Your task to perform on an android device: turn off picture-in-picture Image 0: 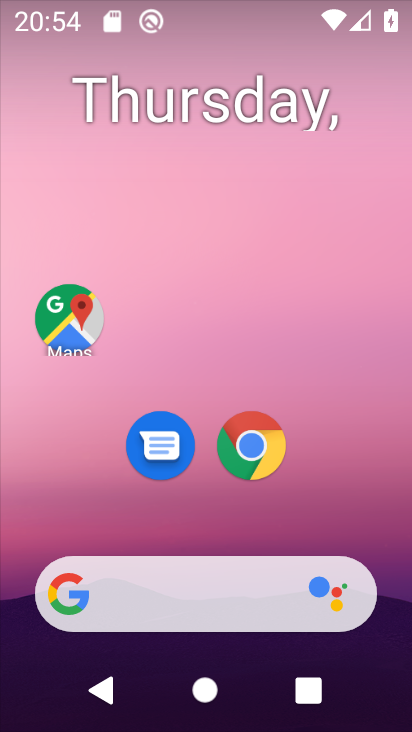
Step 0: drag from (316, 490) to (45, 110)
Your task to perform on an android device: turn off picture-in-picture Image 1: 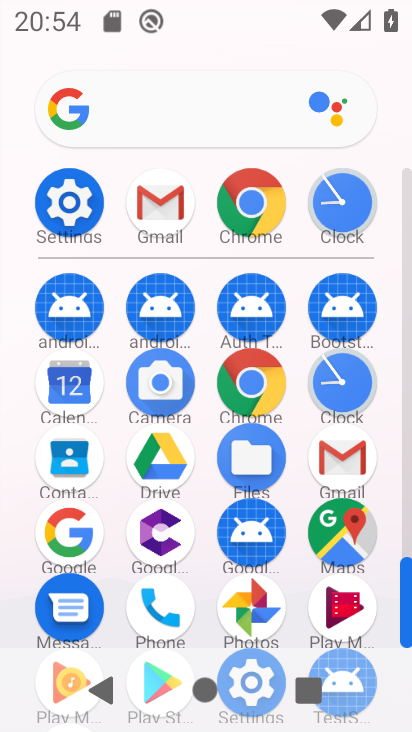
Step 1: click (81, 209)
Your task to perform on an android device: turn off picture-in-picture Image 2: 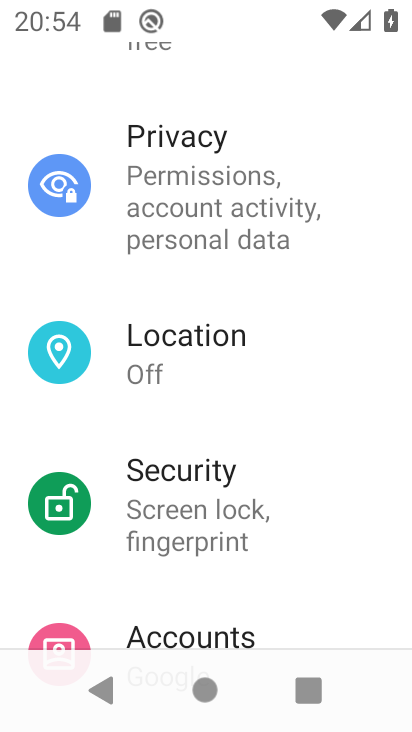
Step 2: drag from (313, 175) to (316, 588)
Your task to perform on an android device: turn off picture-in-picture Image 3: 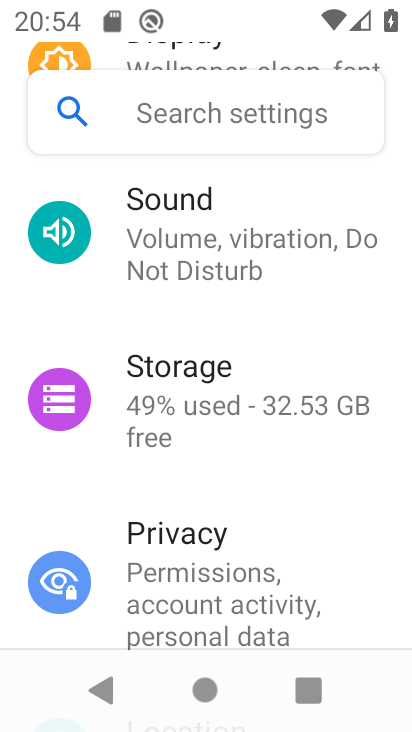
Step 3: drag from (297, 202) to (239, 619)
Your task to perform on an android device: turn off picture-in-picture Image 4: 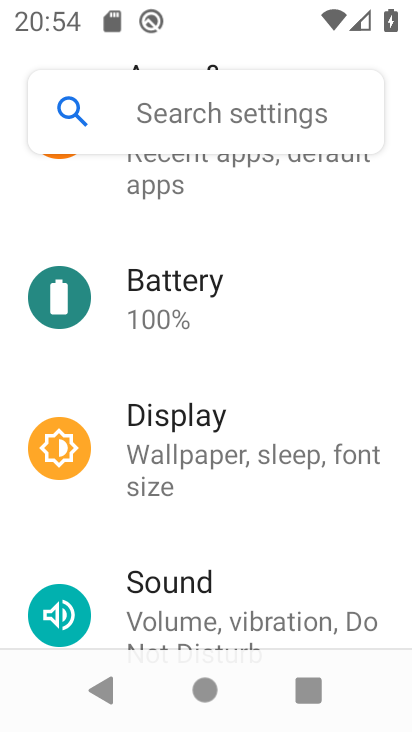
Step 4: drag from (274, 227) to (236, 467)
Your task to perform on an android device: turn off picture-in-picture Image 5: 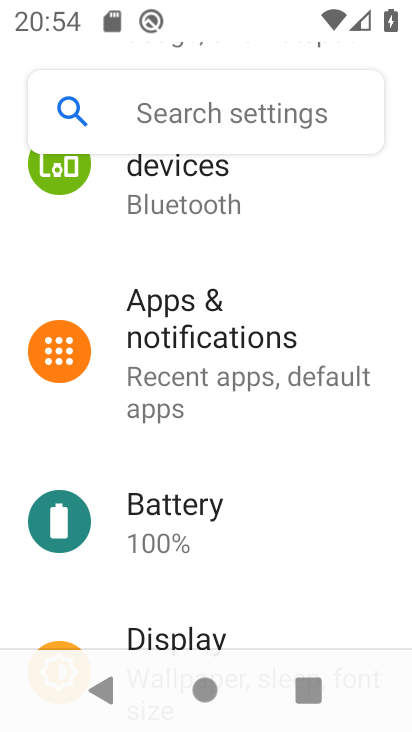
Step 5: click (204, 396)
Your task to perform on an android device: turn off picture-in-picture Image 6: 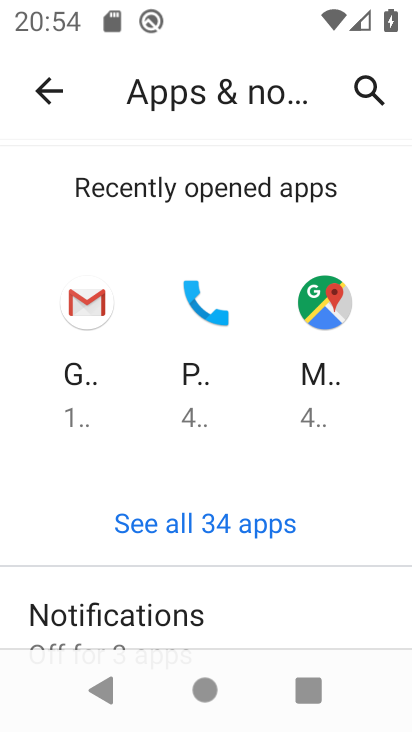
Step 6: drag from (211, 581) to (177, 182)
Your task to perform on an android device: turn off picture-in-picture Image 7: 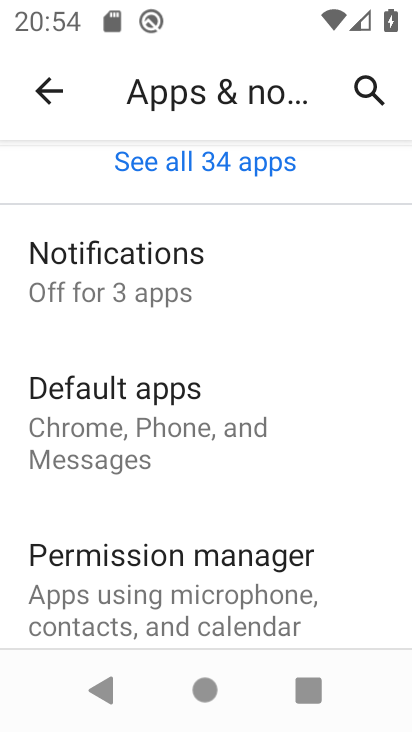
Step 7: click (170, 596)
Your task to perform on an android device: turn off picture-in-picture Image 8: 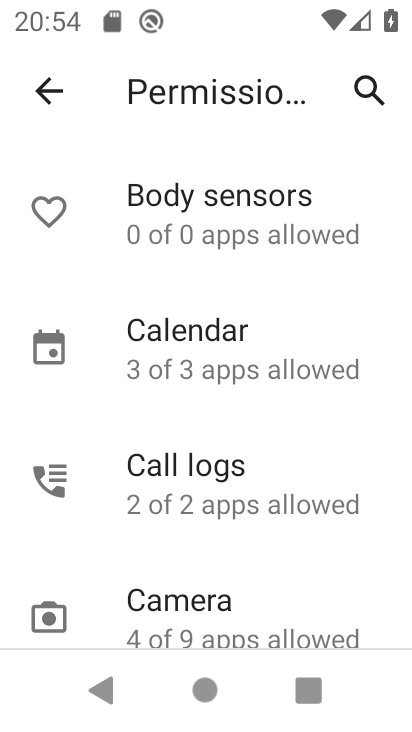
Step 8: press back button
Your task to perform on an android device: turn off picture-in-picture Image 9: 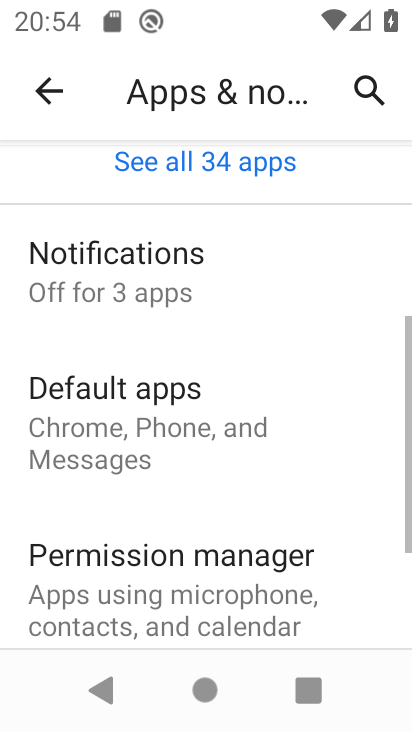
Step 9: drag from (150, 561) to (215, 214)
Your task to perform on an android device: turn off picture-in-picture Image 10: 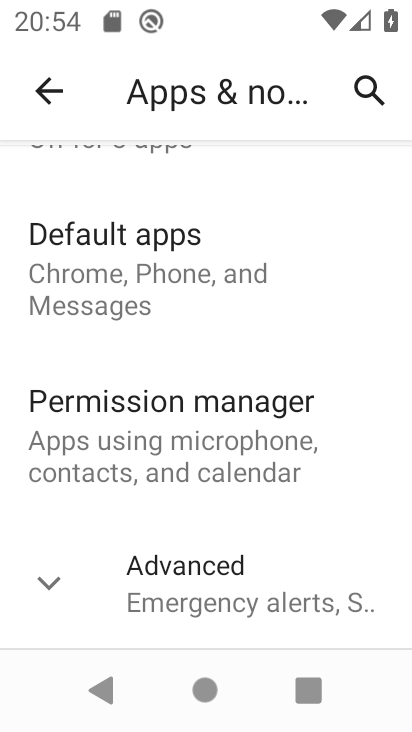
Step 10: click (189, 602)
Your task to perform on an android device: turn off picture-in-picture Image 11: 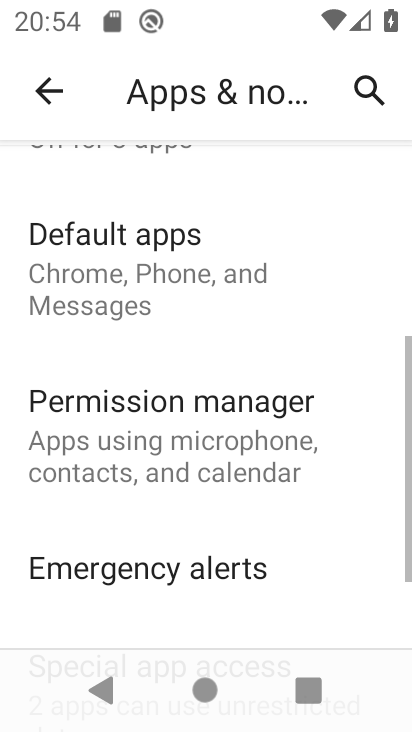
Step 11: drag from (189, 599) to (153, 256)
Your task to perform on an android device: turn off picture-in-picture Image 12: 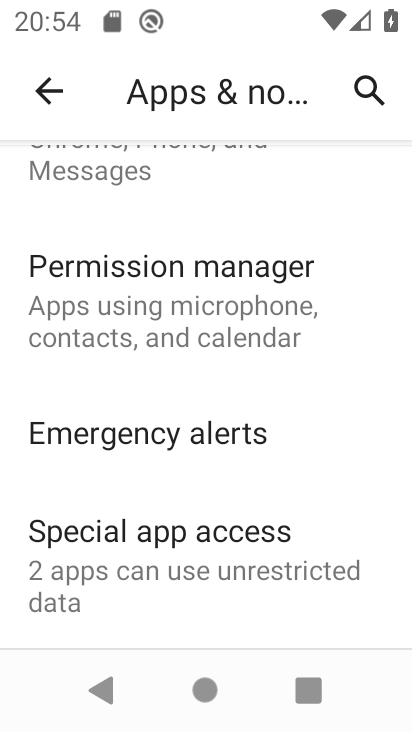
Step 12: click (157, 560)
Your task to perform on an android device: turn off picture-in-picture Image 13: 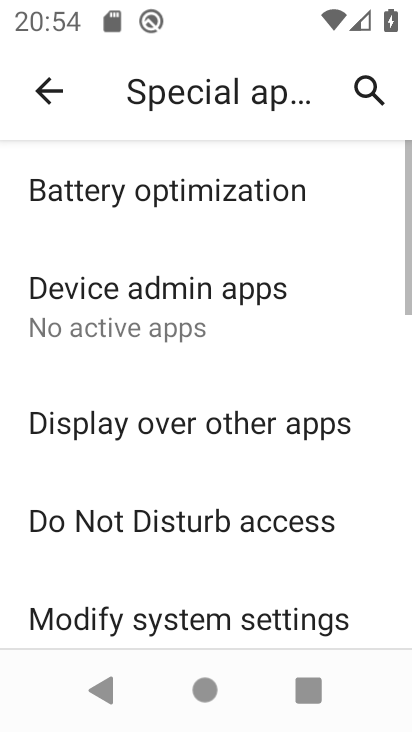
Step 13: drag from (157, 559) to (135, 304)
Your task to perform on an android device: turn off picture-in-picture Image 14: 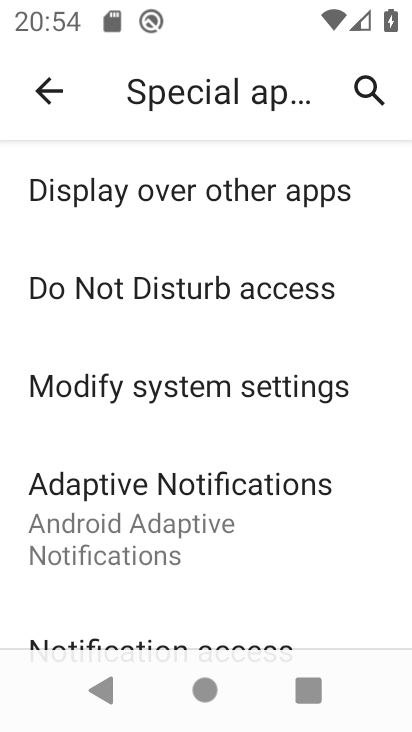
Step 14: drag from (148, 580) to (157, 309)
Your task to perform on an android device: turn off picture-in-picture Image 15: 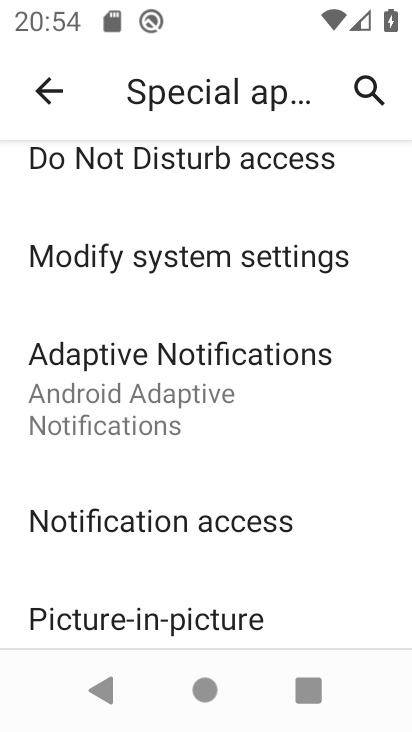
Step 15: click (130, 607)
Your task to perform on an android device: turn off picture-in-picture Image 16: 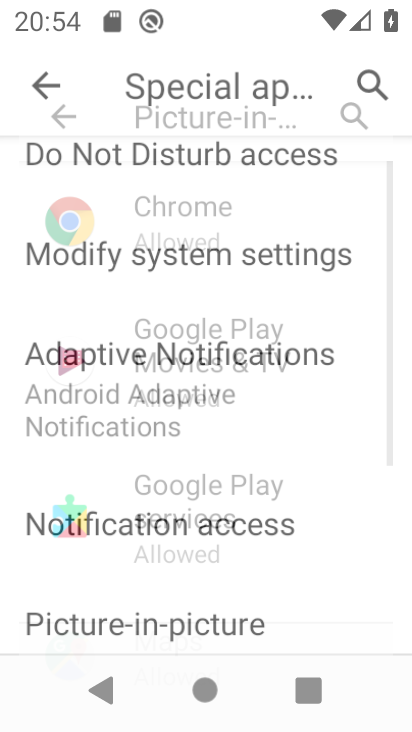
Step 16: drag from (132, 594) to (128, 335)
Your task to perform on an android device: turn off picture-in-picture Image 17: 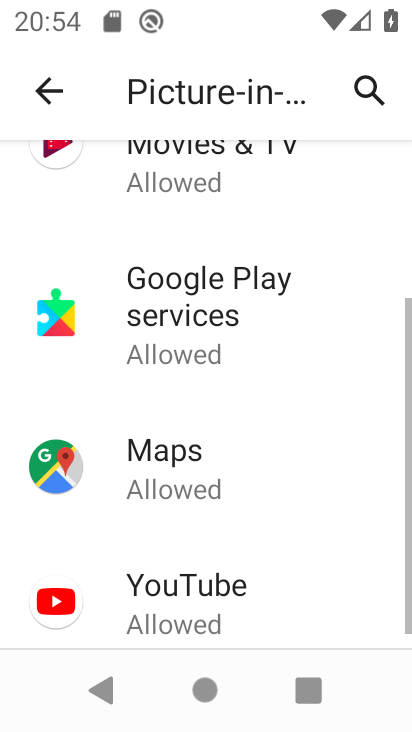
Step 17: click (133, 340)
Your task to perform on an android device: turn off picture-in-picture Image 18: 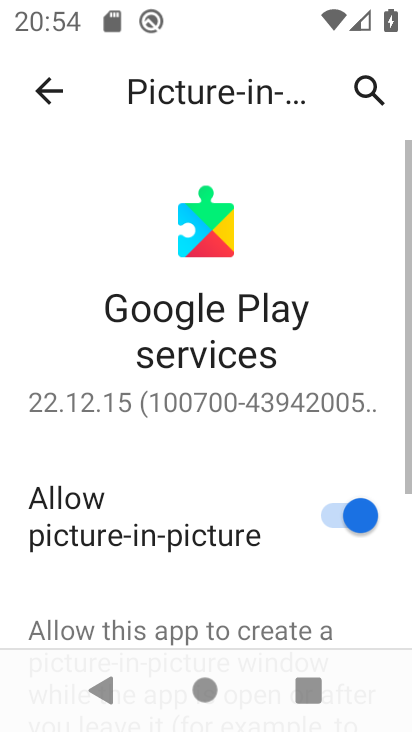
Step 18: click (335, 526)
Your task to perform on an android device: turn off picture-in-picture Image 19: 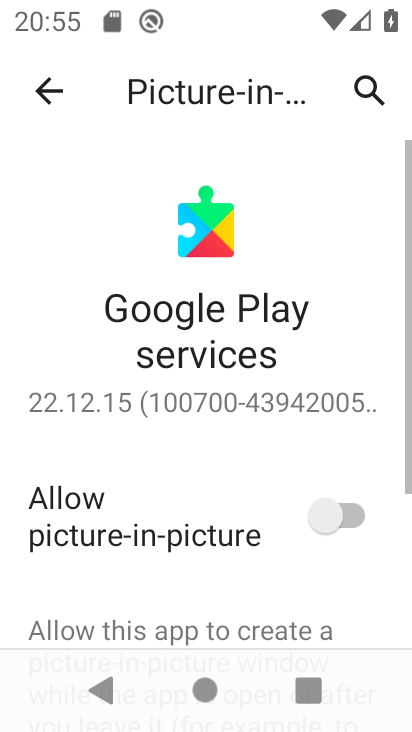
Step 19: task complete